Your task to perform on an android device: Search for sushi restaurants on Maps Image 0: 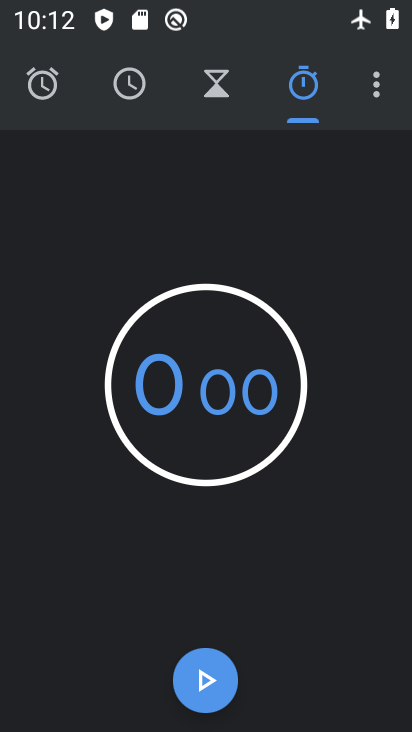
Step 0: press home button
Your task to perform on an android device: Search for sushi restaurants on Maps Image 1: 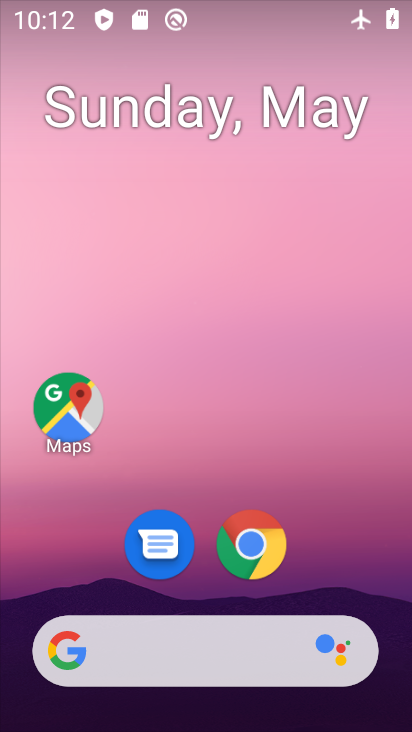
Step 1: click (74, 383)
Your task to perform on an android device: Search for sushi restaurants on Maps Image 2: 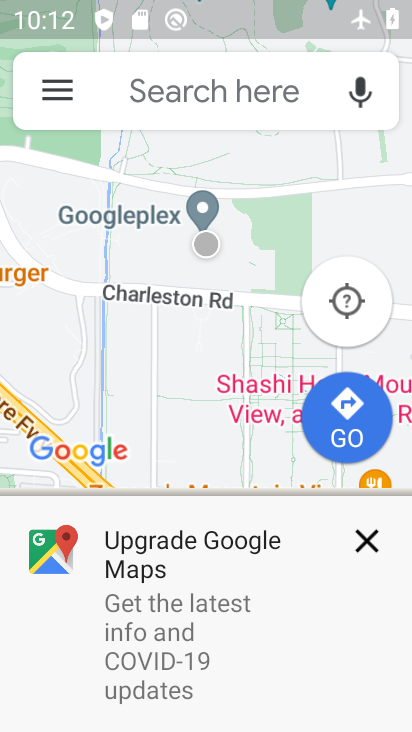
Step 2: click (356, 536)
Your task to perform on an android device: Search for sushi restaurants on Maps Image 3: 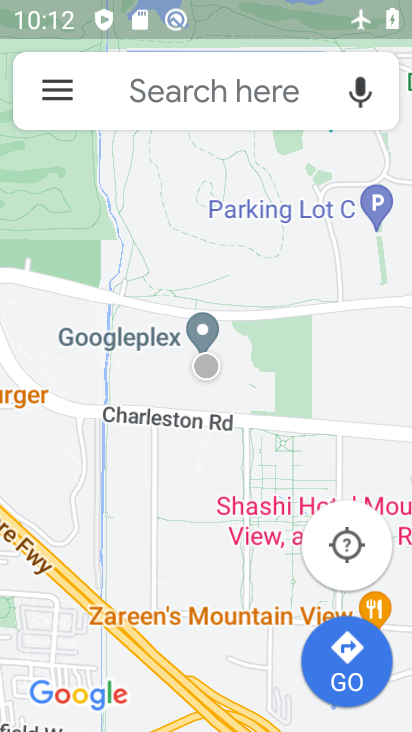
Step 3: click (260, 80)
Your task to perform on an android device: Search for sushi restaurants on Maps Image 4: 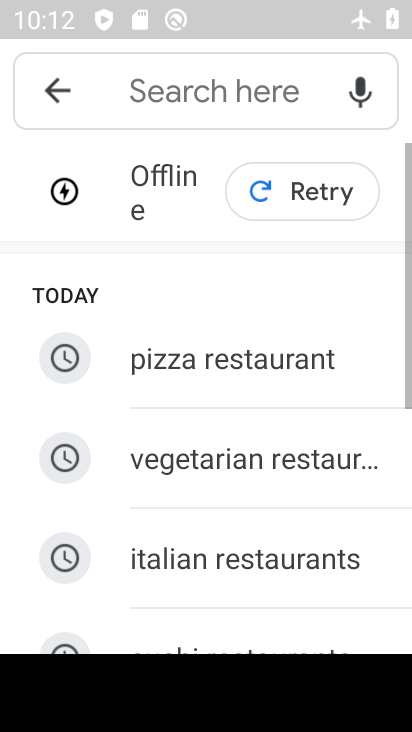
Step 4: drag from (233, 598) to (247, 338)
Your task to perform on an android device: Search for sushi restaurants on Maps Image 5: 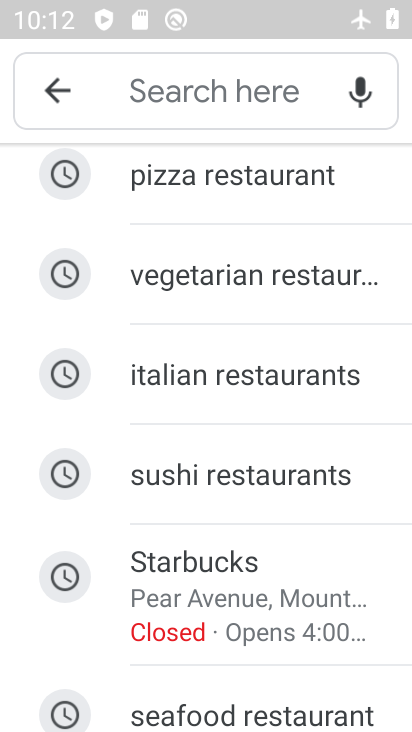
Step 5: click (207, 468)
Your task to perform on an android device: Search for sushi restaurants on Maps Image 6: 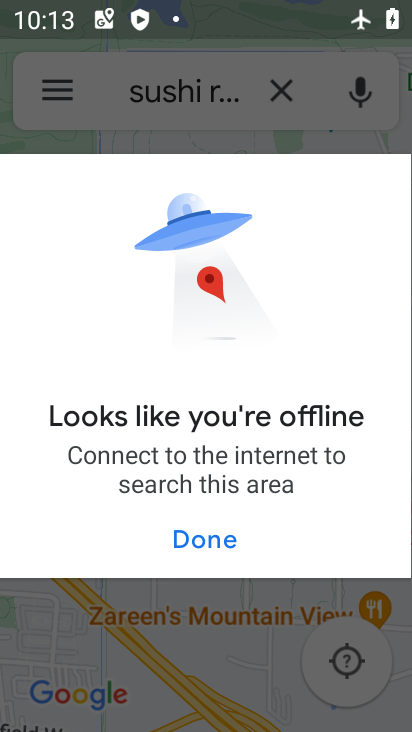
Step 6: click (200, 532)
Your task to perform on an android device: Search for sushi restaurants on Maps Image 7: 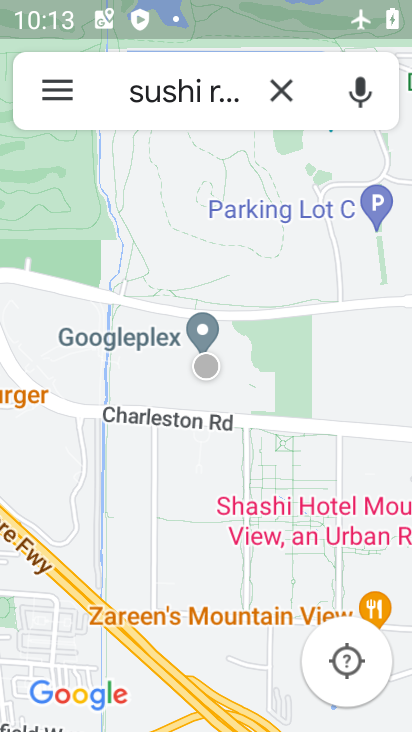
Step 7: click (238, 86)
Your task to perform on an android device: Search for sushi restaurants on Maps Image 8: 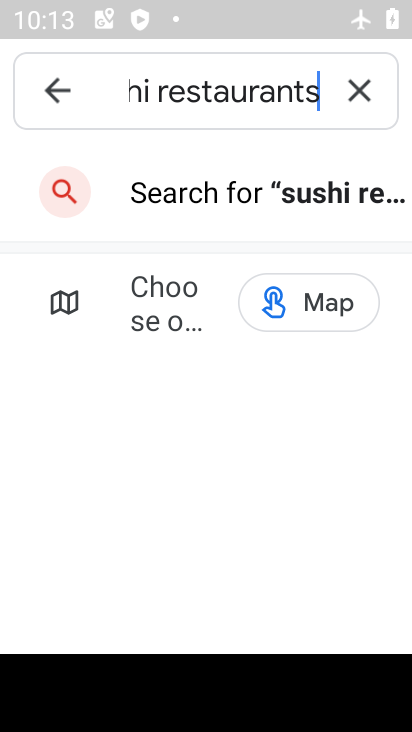
Step 8: click (250, 189)
Your task to perform on an android device: Search for sushi restaurants on Maps Image 9: 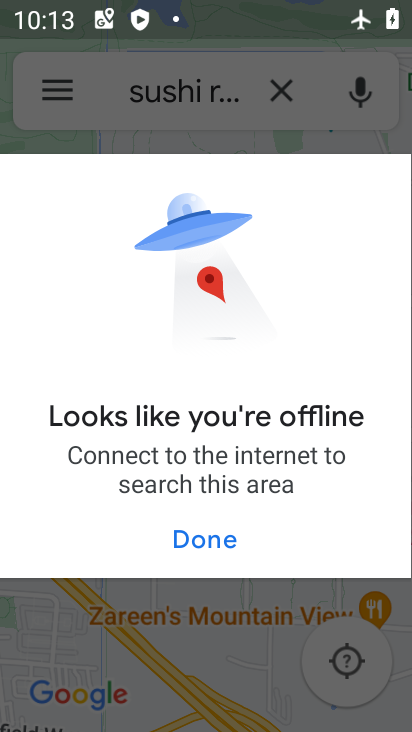
Step 9: task complete